Your task to perform on an android device: Search for dining sets on article.com Image 0: 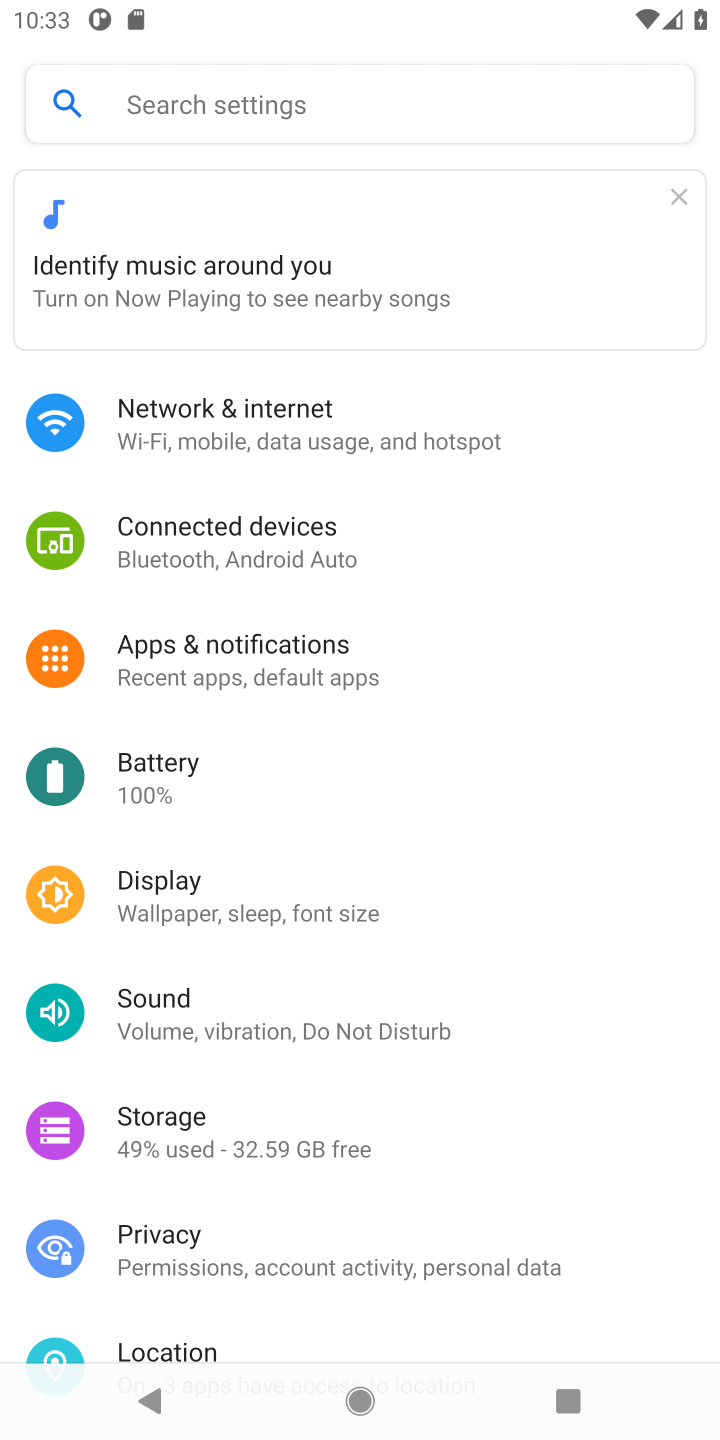
Step 0: press home button
Your task to perform on an android device: Search for dining sets on article.com Image 1: 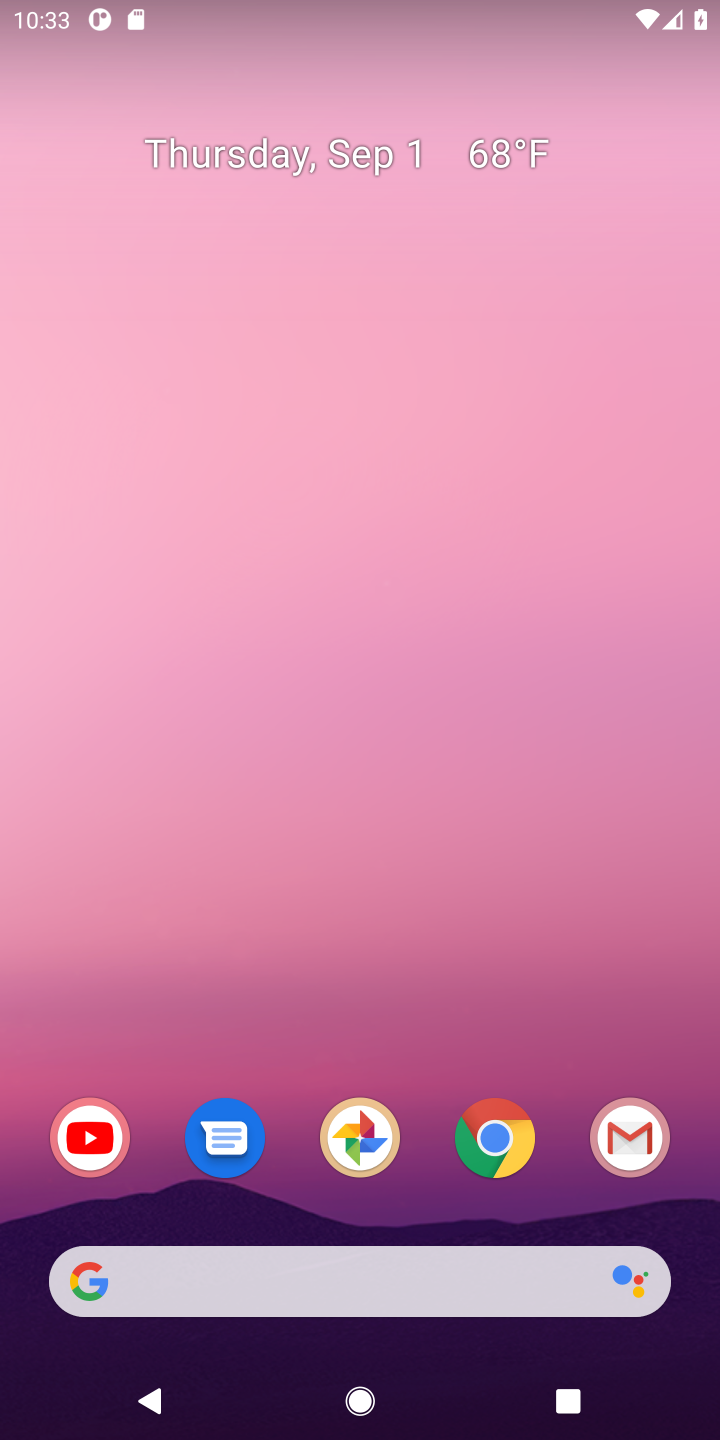
Step 1: click (385, 1260)
Your task to perform on an android device: Search for dining sets on article.com Image 2: 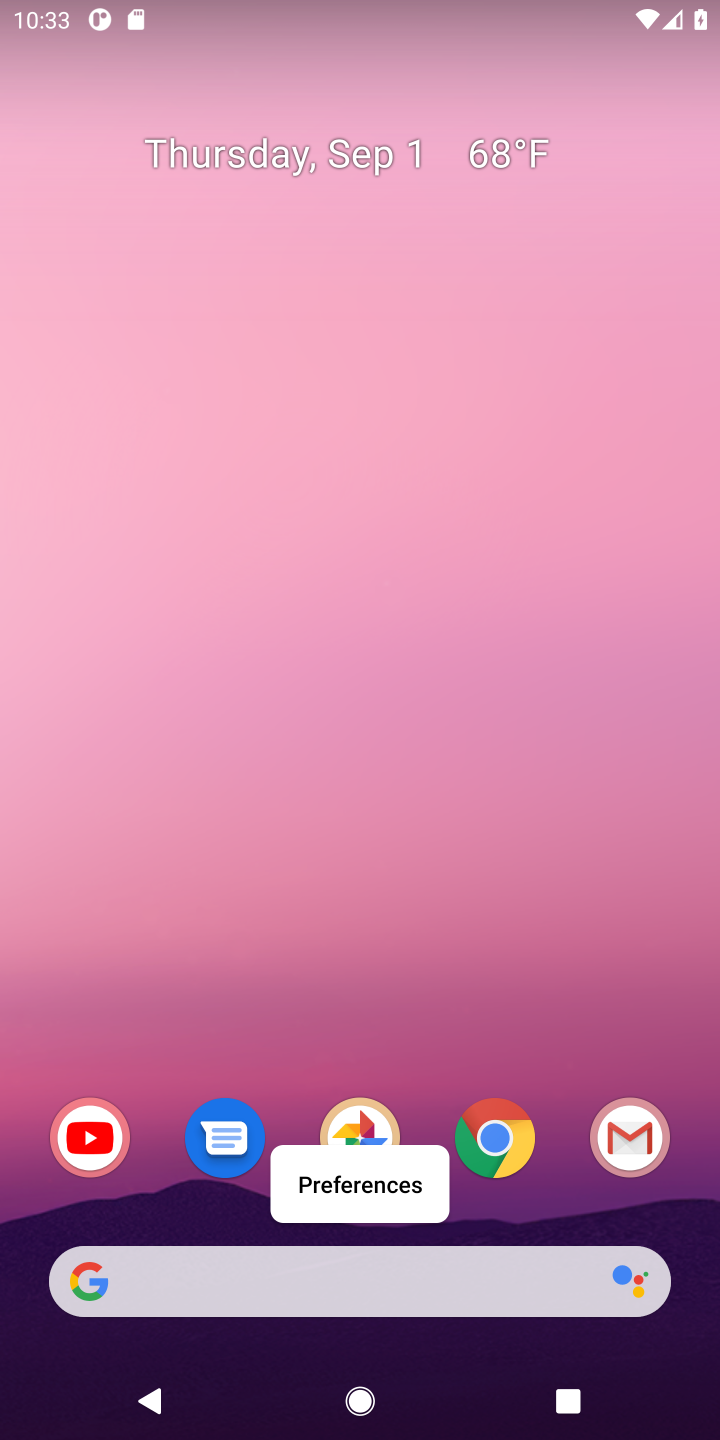
Step 2: click (334, 1278)
Your task to perform on an android device: Search for dining sets on article.com Image 3: 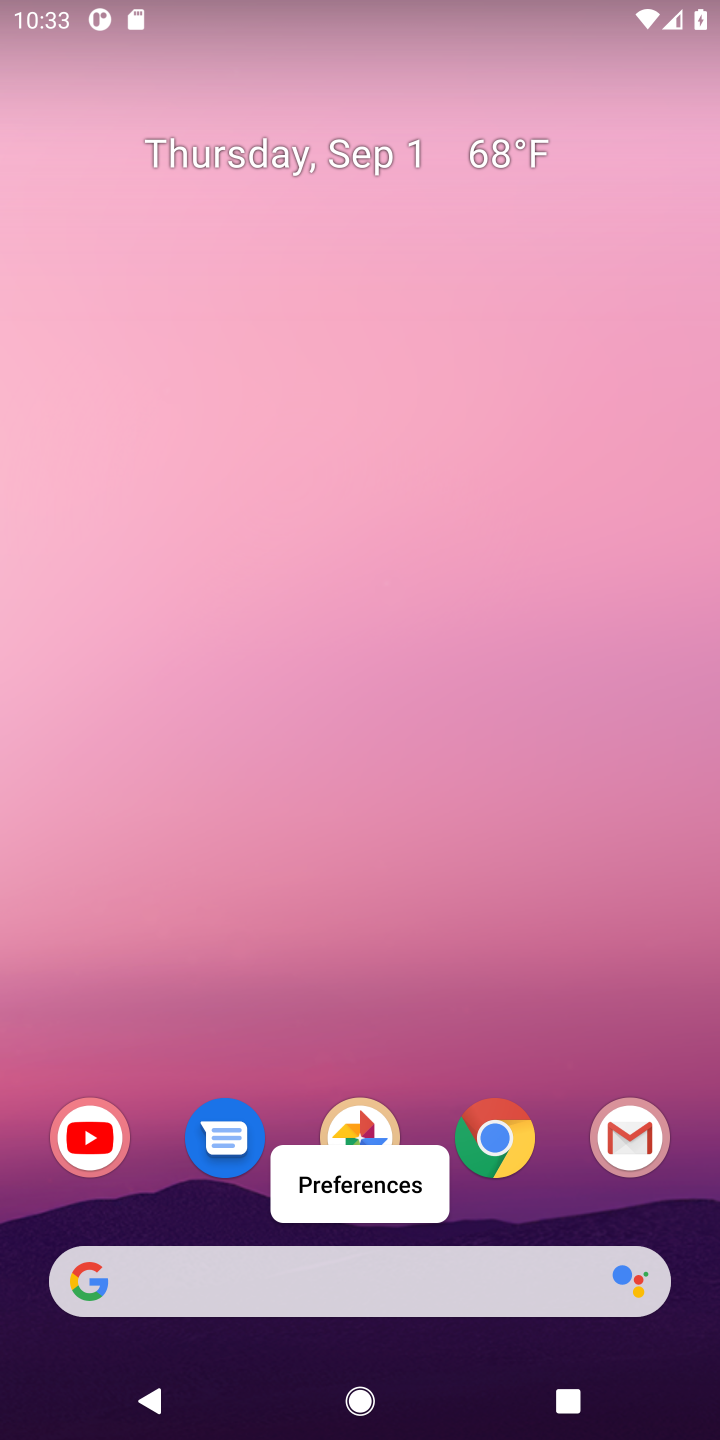
Step 3: click (274, 1291)
Your task to perform on an android device: Search for dining sets on article.com Image 4: 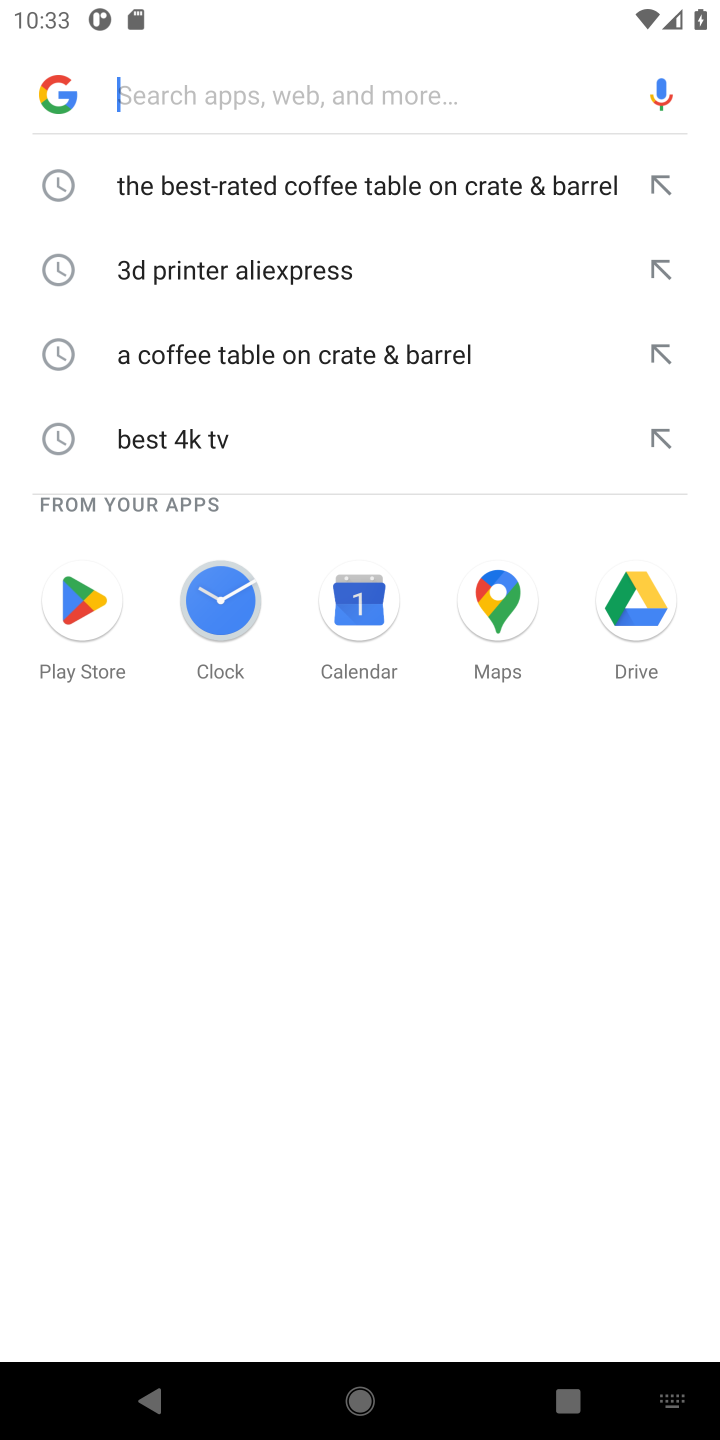
Step 4: type "dining sets on article.com"
Your task to perform on an android device: Search for dining sets on article.com Image 5: 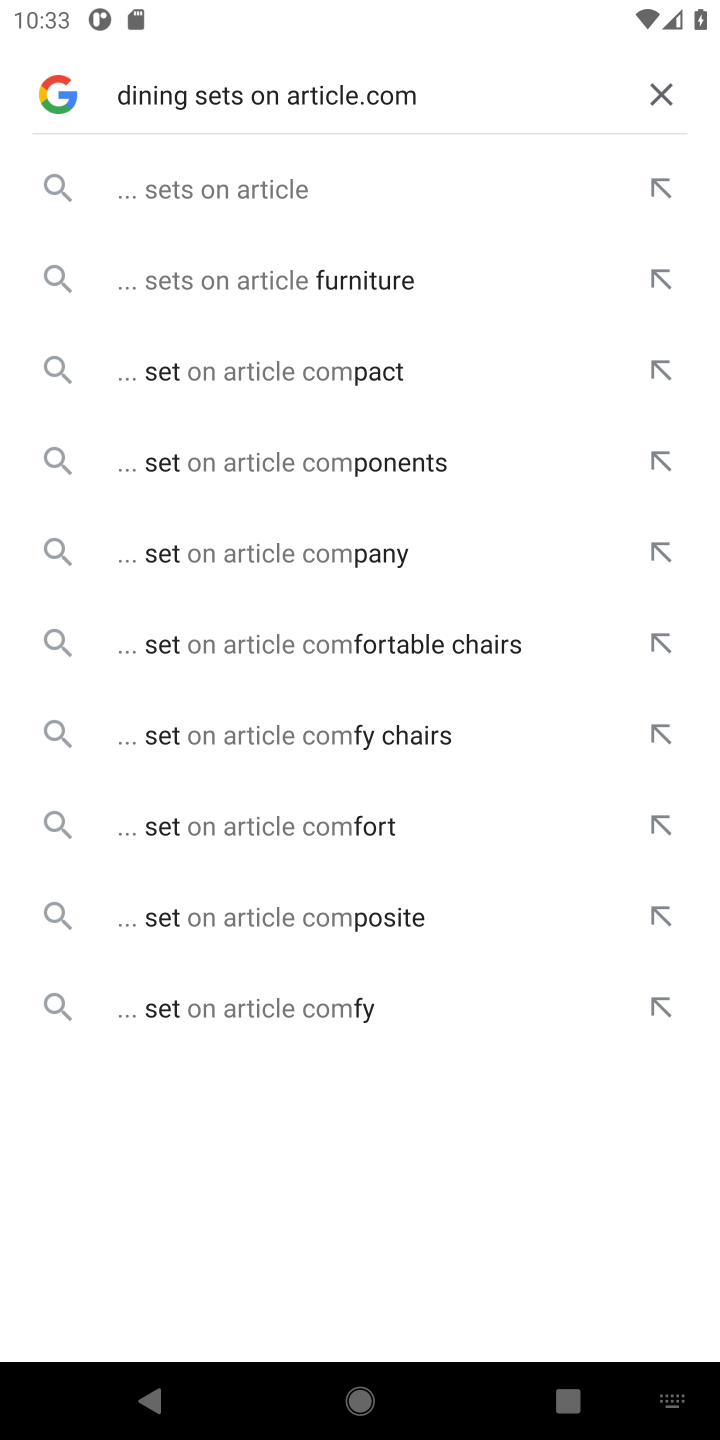
Step 5: click (192, 191)
Your task to perform on an android device: Search for dining sets on article.com Image 6: 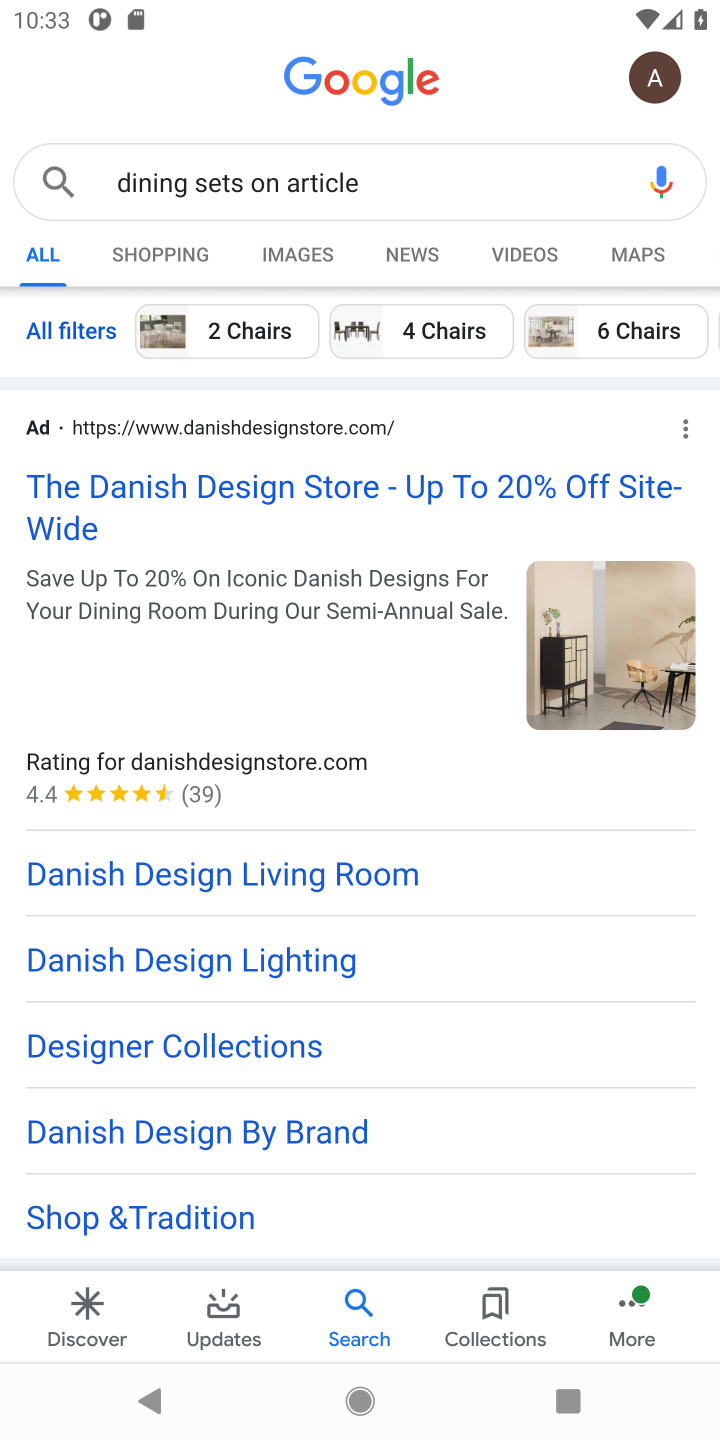
Step 6: task complete